Your task to perform on an android device: Open calendar and show me the third week of next month Image 0: 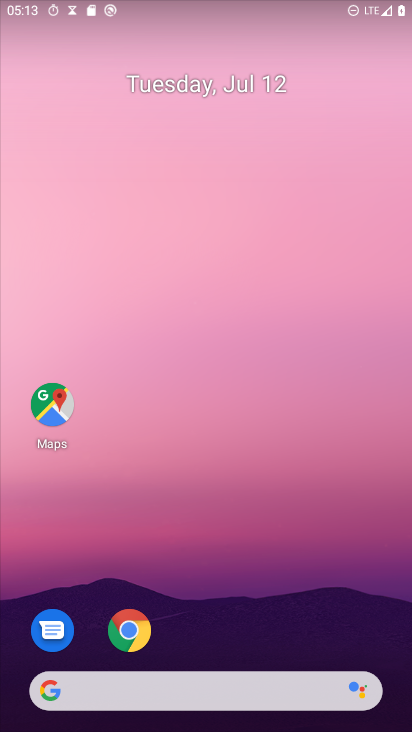
Step 0: drag from (323, 676) to (325, 17)
Your task to perform on an android device: Open calendar and show me the third week of next month Image 1: 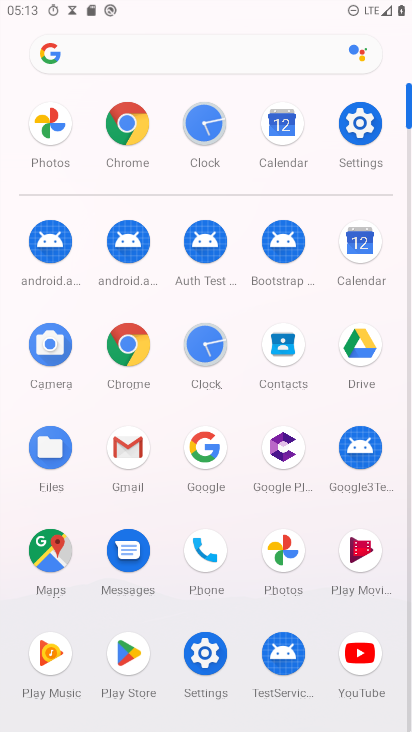
Step 1: click (349, 248)
Your task to perform on an android device: Open calendar and show me the third week of next month Image 2: 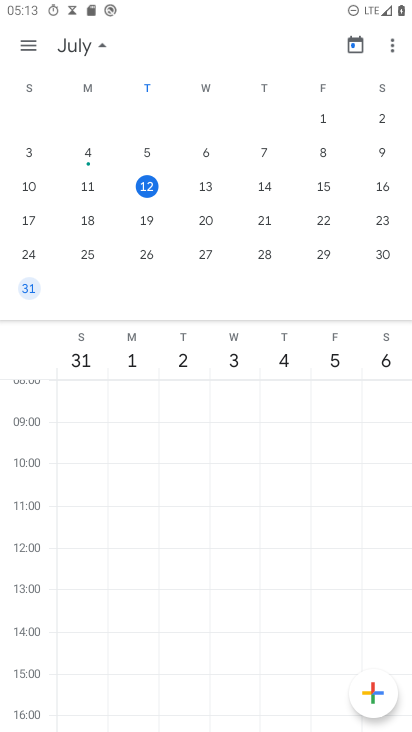
Step 2: drag from (335, 240) to (47, 216)
Your task to perform on an android device: Open calendar and show me the third week of next month Image 3: 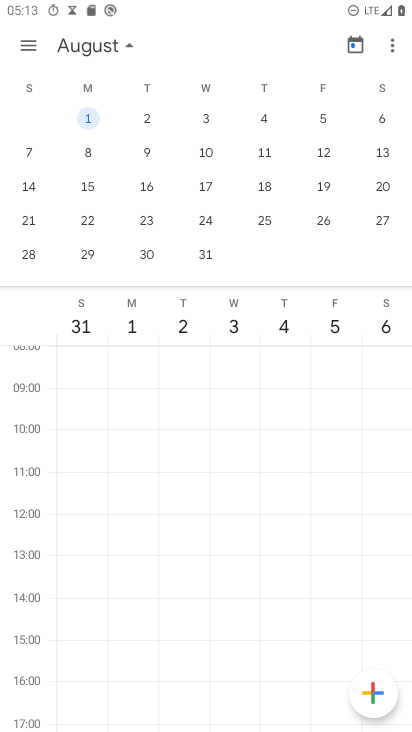
Step 3: click (211, 188)
Your task to perform on an android device: Open calendar and show me the third week of next month Image 4: 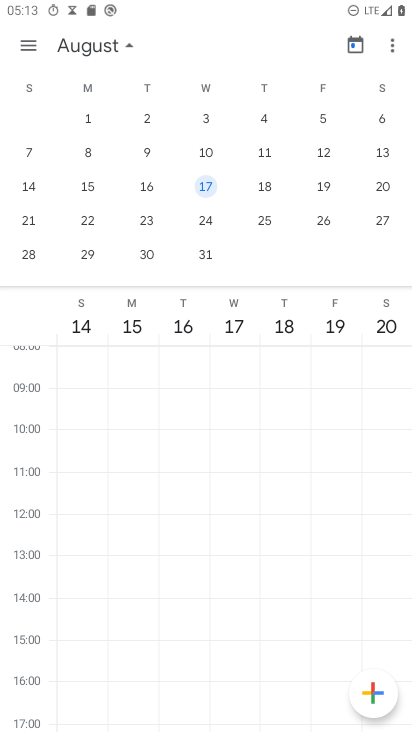
Step 4: task complete